Your task to perform on an android device: change your default location settings in chrome Image 0: 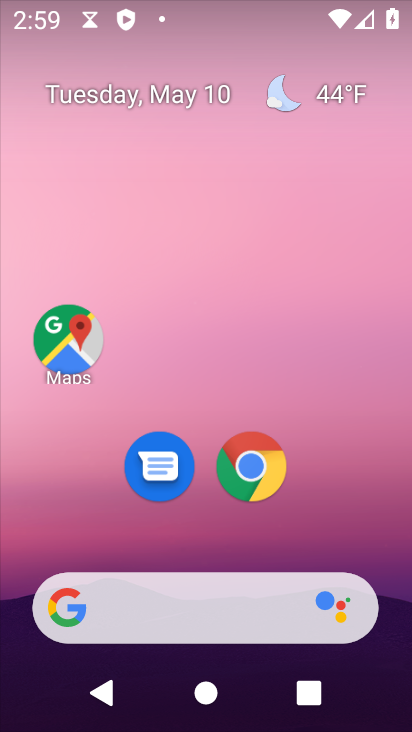
Step 0: click (251, 464)
Your task to perform on an android device: change your default location settings in chrome Image 1: 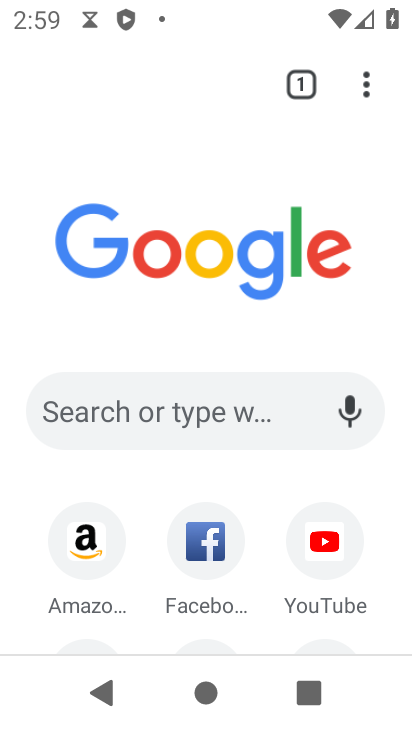
Step 1: click (364, 85)
Your task to perform on an android device: change your default location settings in chrome Image 2: 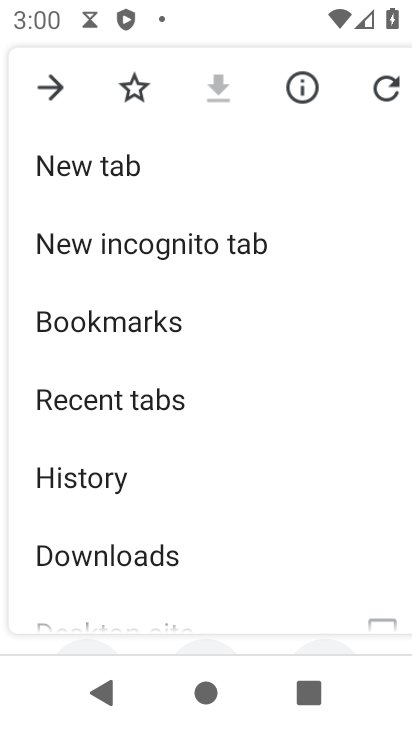
Step 2: drag from (178, 521) to (195, 369)
Your task to perform on an android device: change your default location settings in chrome Image 3: 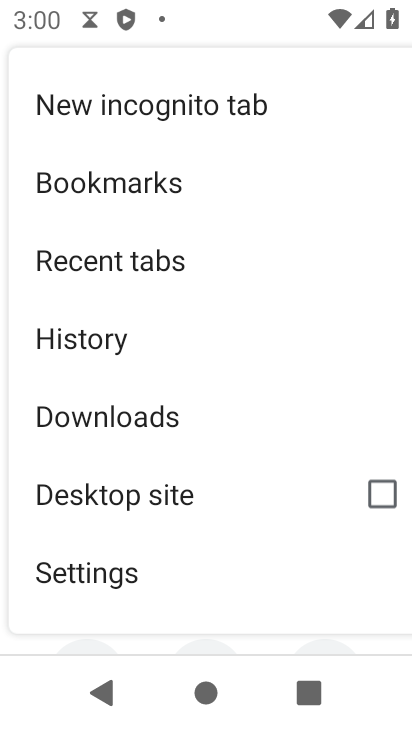
Step 3: drag from (159, 531) to (201, 396)
Your task to perform on an android device: change your default location settings in chrome Image 4: 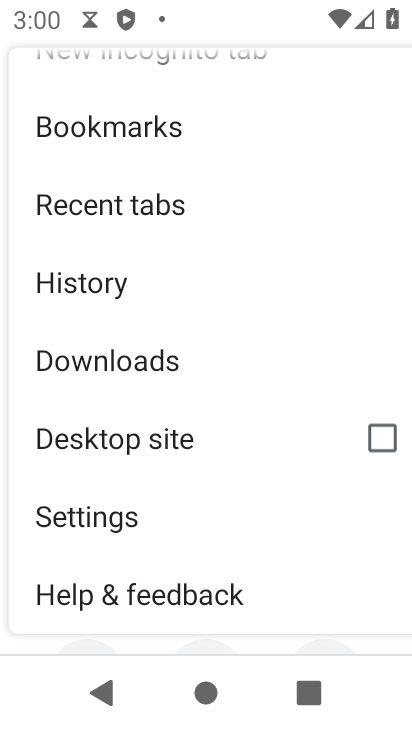
Step 4: click (84, 513)
Your task to perform on an android device: change your default location settings in chrome Image 5: 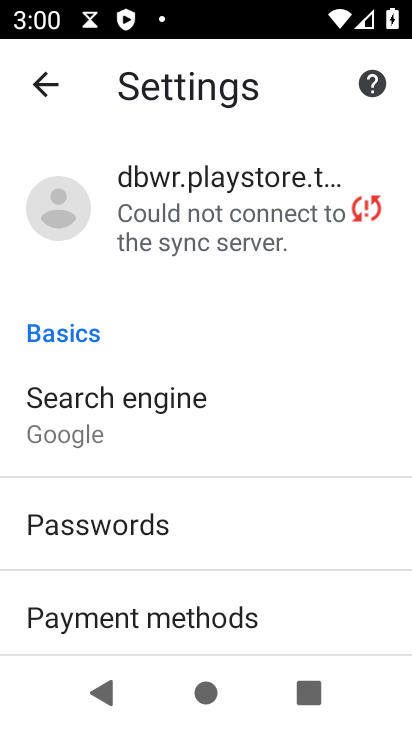
Step 5: drag from (182, 588) to (218, 424)
Your task to perform on an android device: change your default location settings in chrome Image 6: 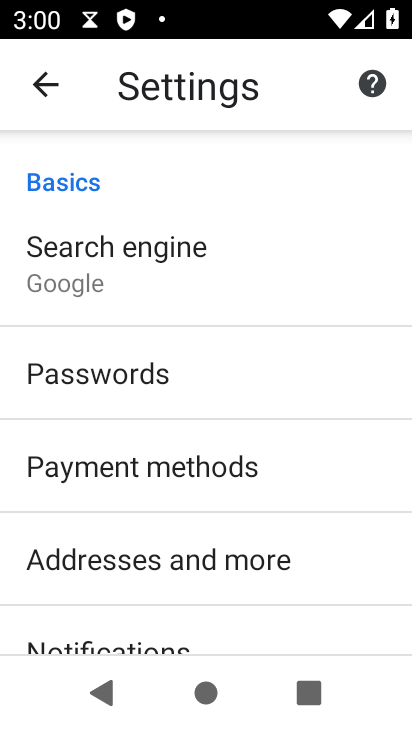
Step 6: drag from (123, 593) to (201, 449)
Your task to perform on an android device: change your default location settings in chrome Image 7: 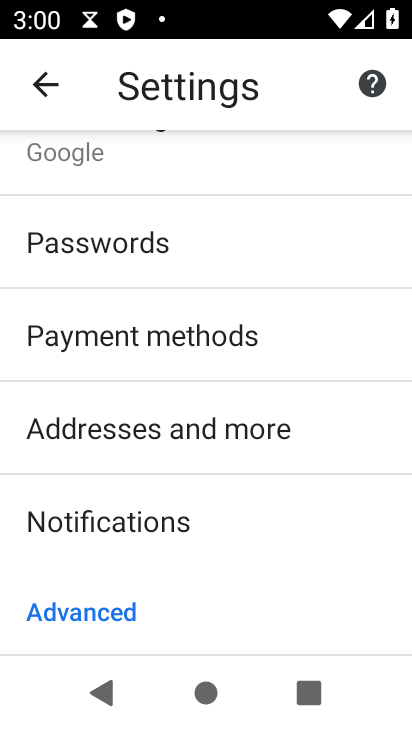
Step 7: drag from (124, 562) to (217, 383)
Your task to perform on an android device: change your default location settings in chrome Image 8: 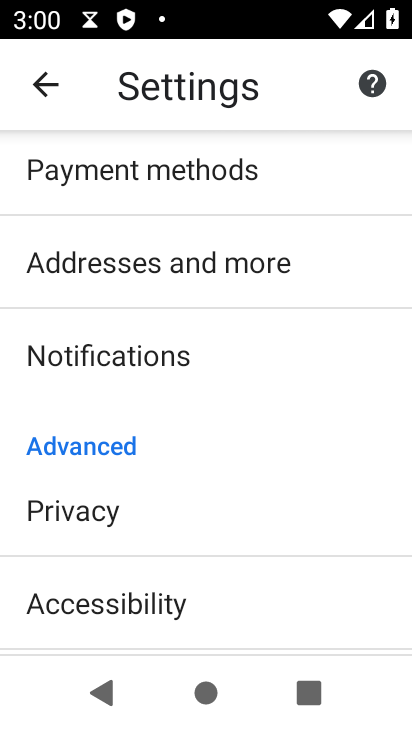
Step 8: drag from (144, 580) to (248, 430)
Your task to perform on an android device: change your default location settings in chrome Image 9: 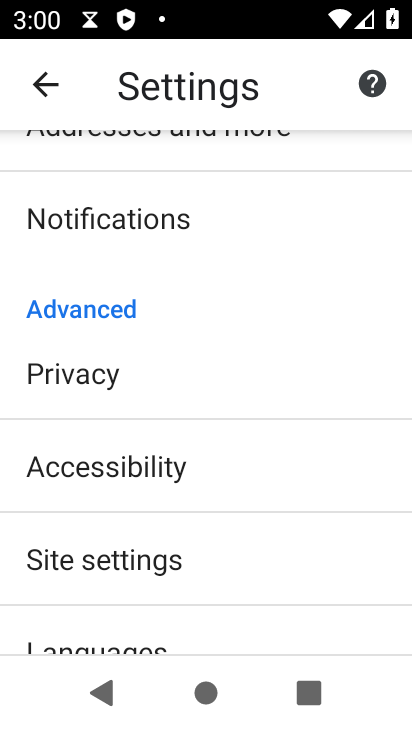
Step 9: click (131, 554)
Your task to perform on an android device: change your default location settings in chrome Image 10: 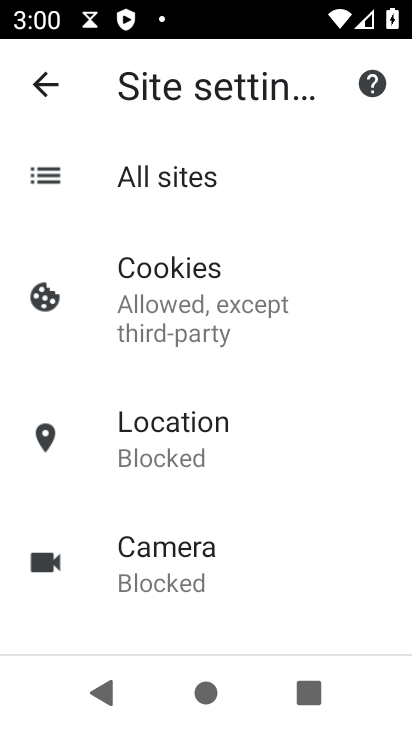
Step 10: click (165, 440)
Your task to perform on an android device: change your default location settings in chrome Image 11: 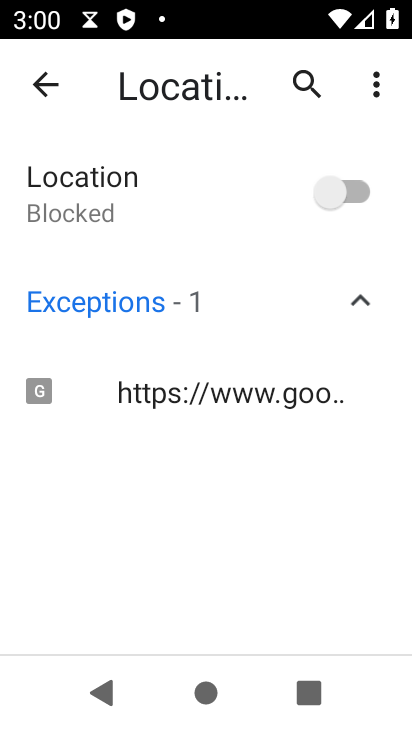
Step 11: click (338, 195)
Your task to perform on an android device: change your default location settings in chrome Image 12: 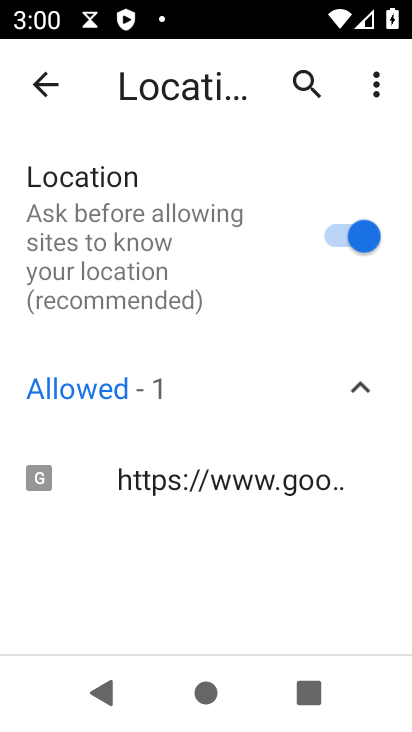
Step 12: task complete